Your task to perform on an android device: Open CNN.com Image 0: 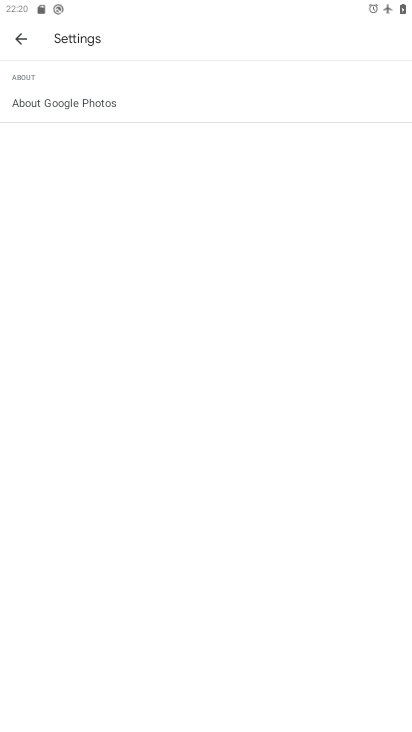
Step 0: press home button
Your task to perform on an android device: Open CNN.com Image 1: 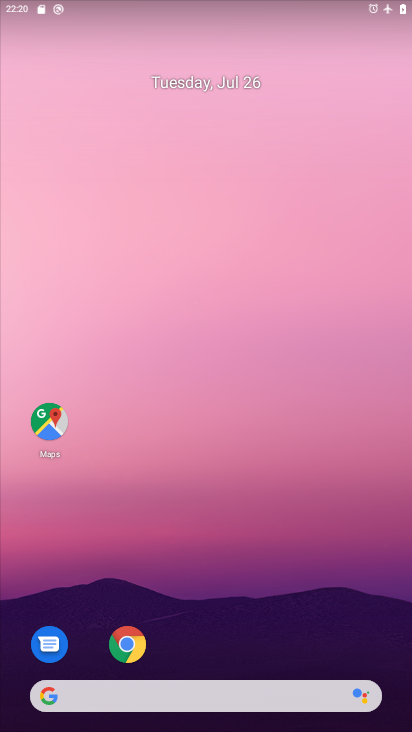
Step 1: click (122, 637)
Your task to perform on an android device: Open CNN.com Image 2: 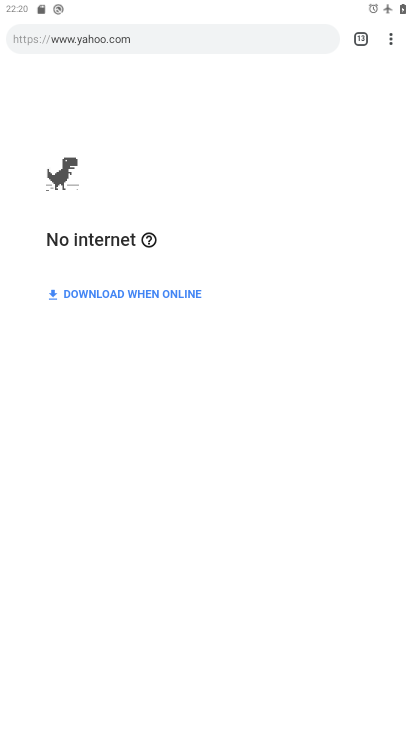
Step 2: click (391, 42)
Your task to perform on an android device: Open CNN.com Image 3: 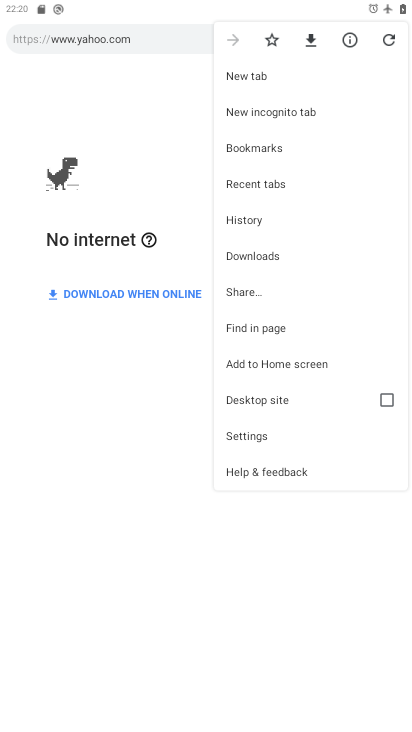
Step 3: click (275, 84)
Your task to perform on an android device: Open CNN.com Image 4: 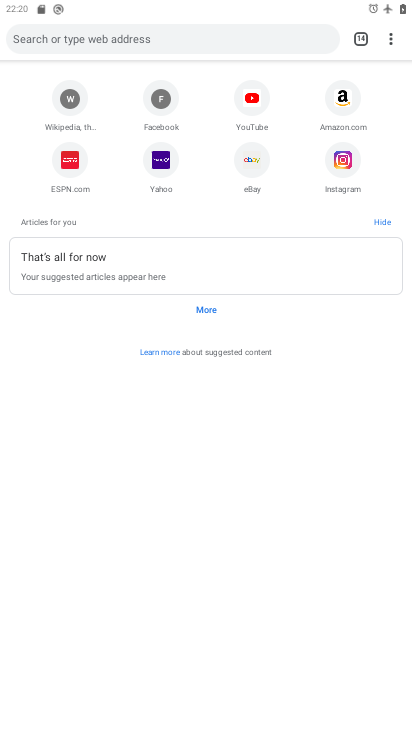
Step 4: click (147, 34)
Your task to perform on an android device: Open CNN.com Image 5: 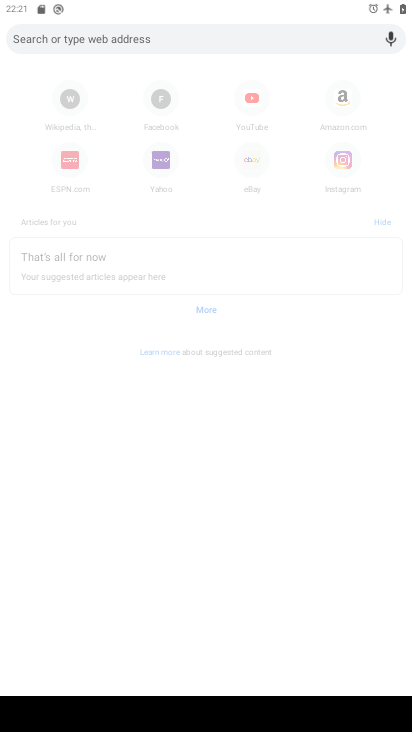
Step 5: type "CNN.com "
Your task to perform on an android device: Open CNN.com Image 6: 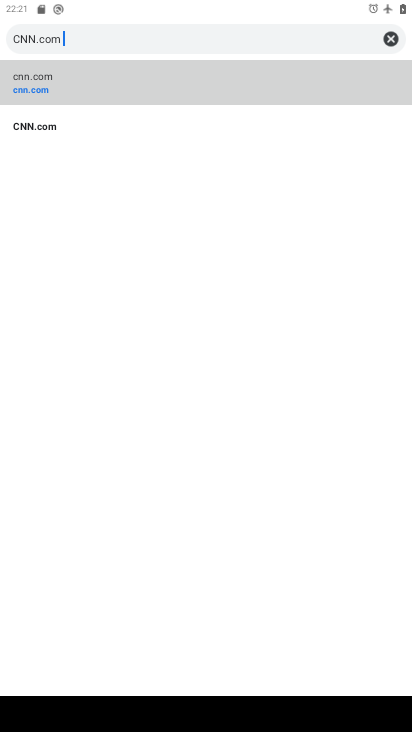
Step 6: click (126, 76)
Your task to perform on an android device: Open CNN.com Image 7: 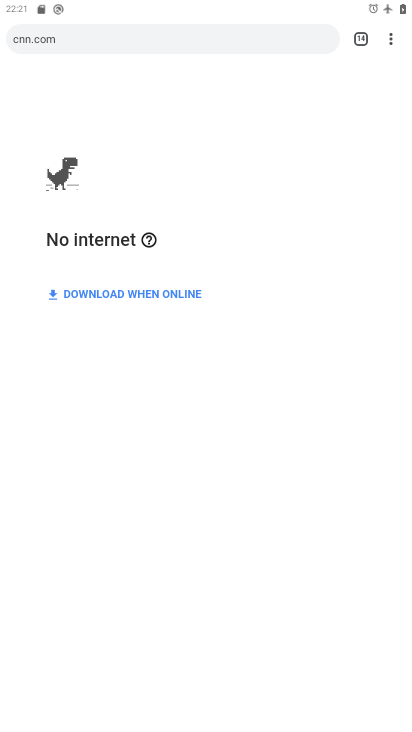
Step 7: task complete